Your task to perform on an android device: Is it going to rain this weekend? Image 0: 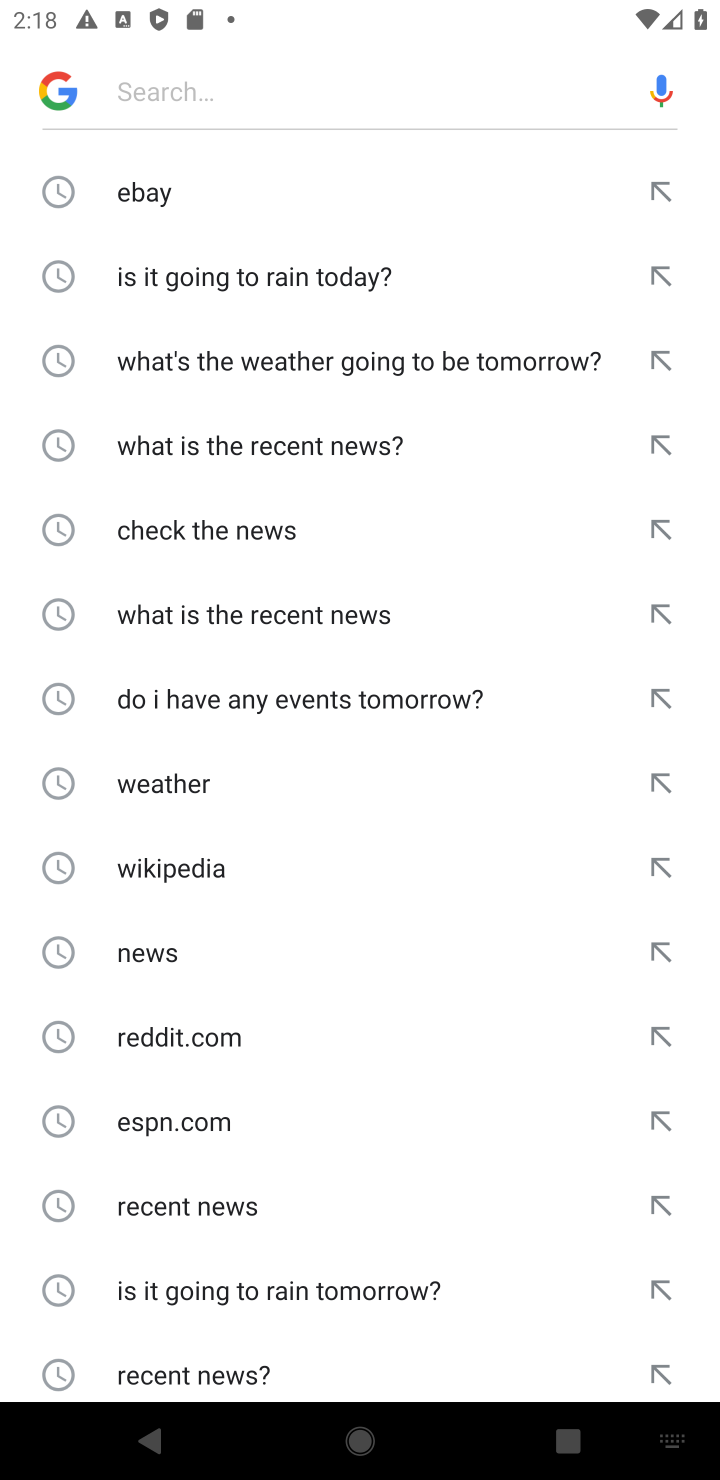
Step 0: type "Is it going to rain this weekend?"
Your task to perform on an android device: Is it going to rain this weekend? Image 1: 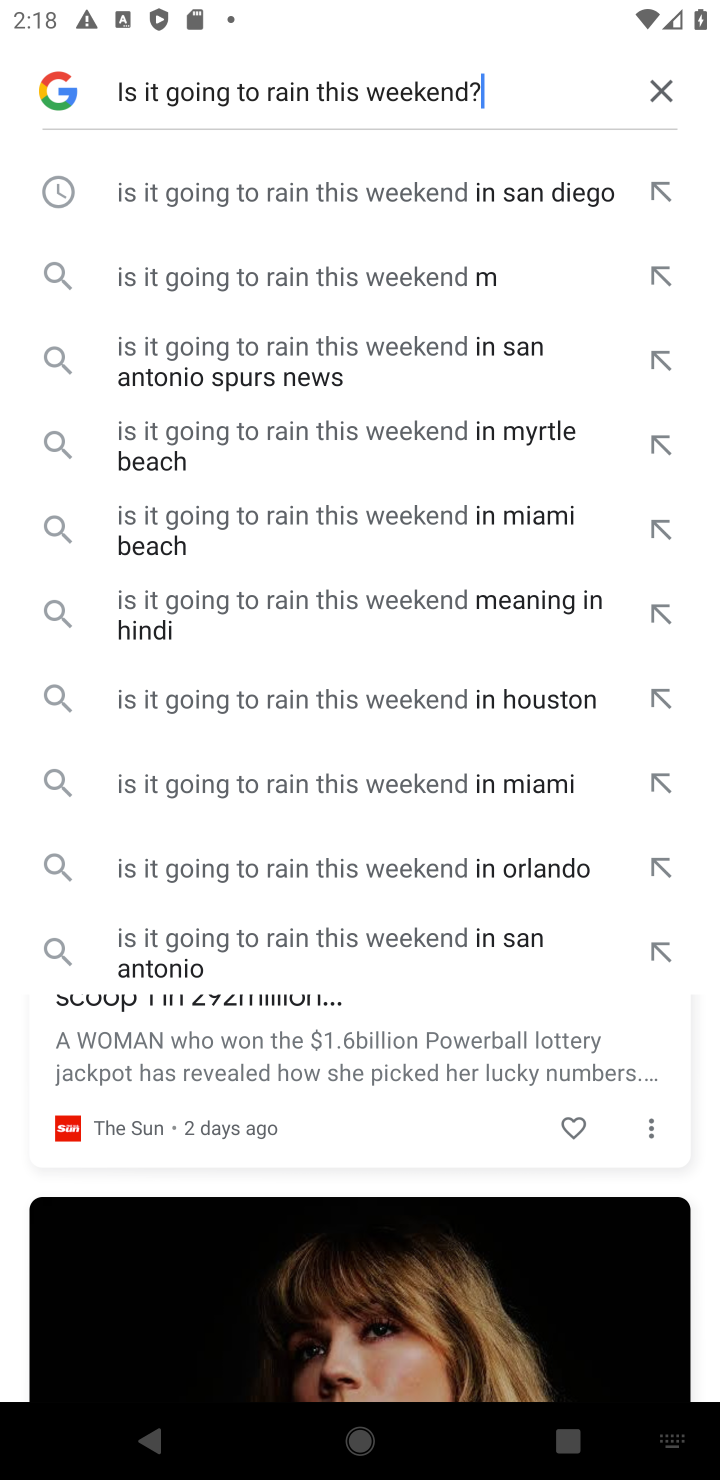
Step 1: task complete